Your task to perform on an android device: turn on airplane mode Image 0: 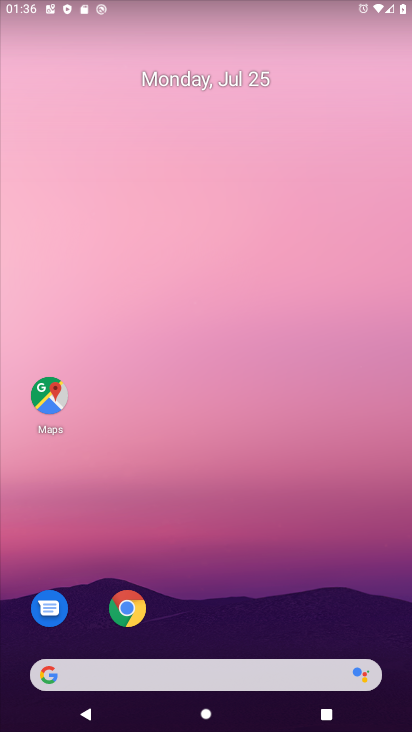
Step 0: drag from (178, 672) to (115, 72)
Your task to perform on an android device: turn on airplane mode Image 1: 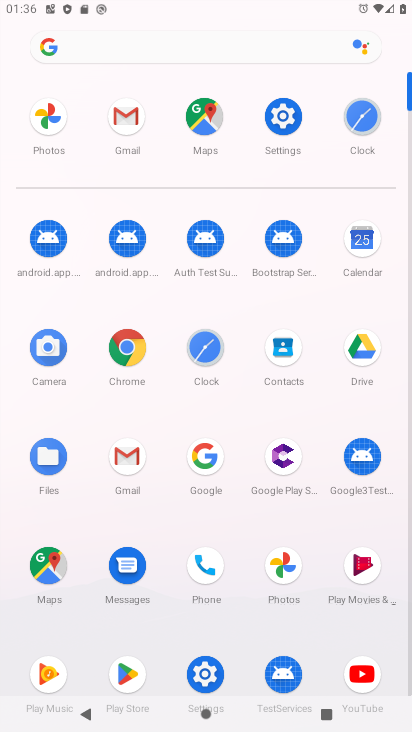
Step 1: click (210, 667)
Your task to perform on an android device: turn on airplane mode Image 2: 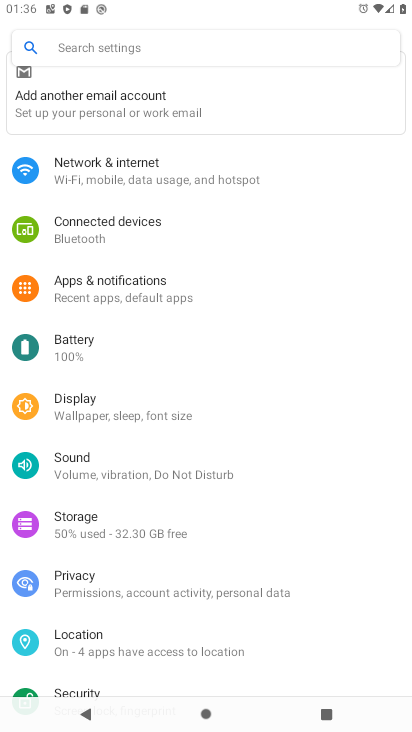
Step 2: click (175, 188)
Your task to perform on an android device: turn on airplane mode Image 3: 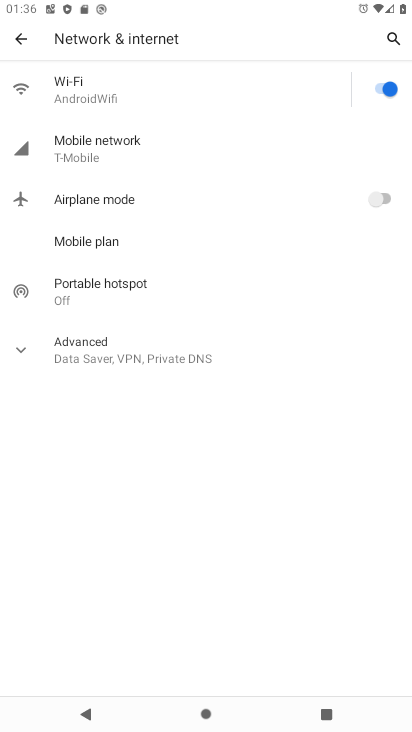
Step 3: click (370, 200)
Your task to perform on an android device: turn on airplane mode Image 4: 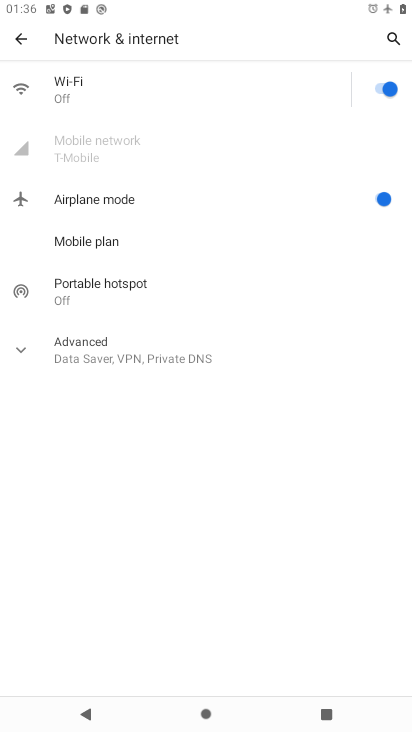
Step 4: task complete